Your task to perform on an android device: stop showing notifications on the lock screen Image 0: 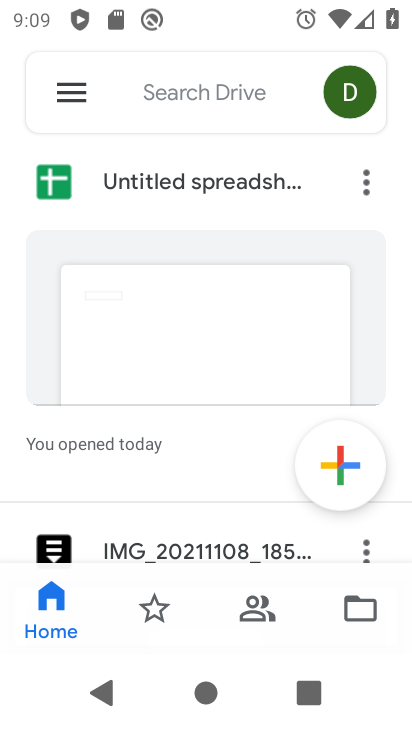
Step 0: drag from (222, 524) to (331, 24)
Your task to perform on an android device: stop showing notifications on the lock screen Image 1: 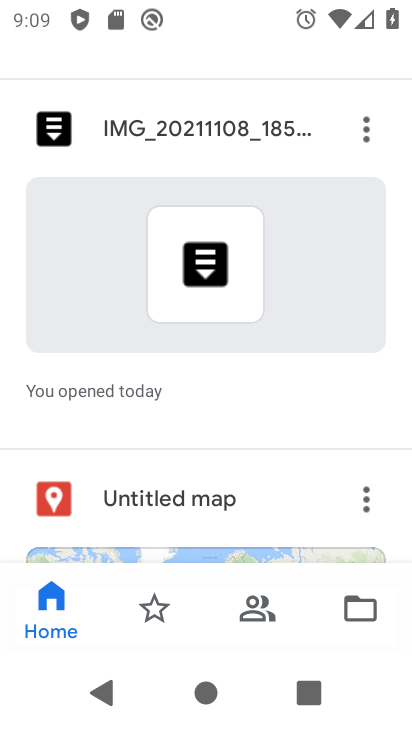
Step 1: press home button
Your task to perform on an android device: stop showing notifications on the lock screen Image 2: 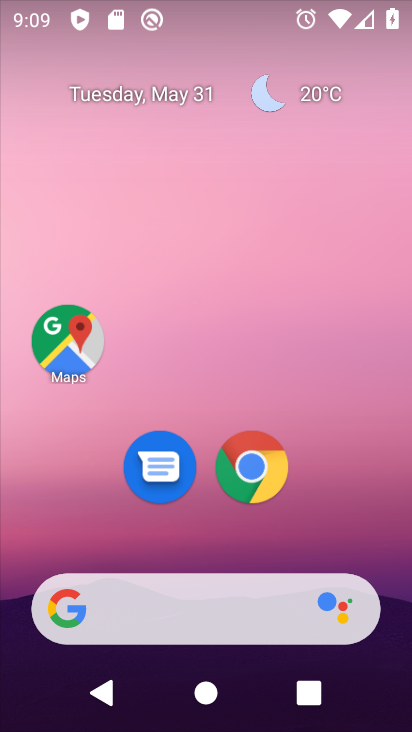
Step 2: drag from (206, 458) to (223, 208)
Your task to perform on an android device: stop showing notifications on the lock screen Image 3: 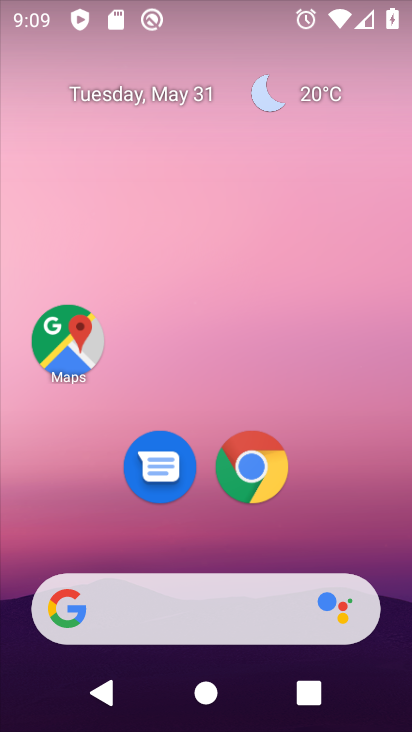
Step 3: drag from (191, 571) to (193, 122)
Your task to perform on an android device: stop showing notifications on the lock screen Image 4: 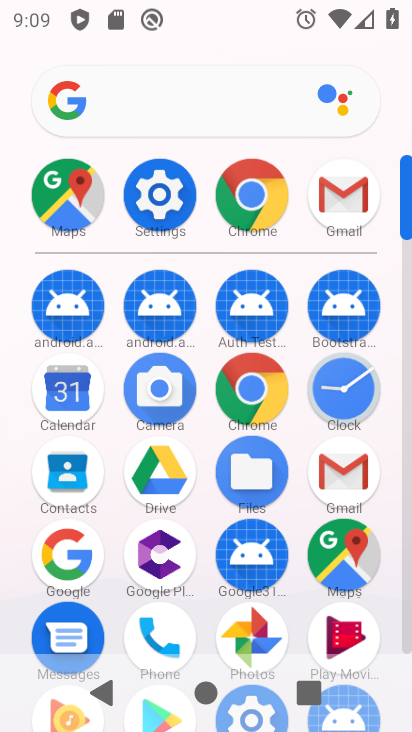
Step 4: click (155, 187)
Your task to perform on an android device: stop showing notifications on the lock screen Image 5: 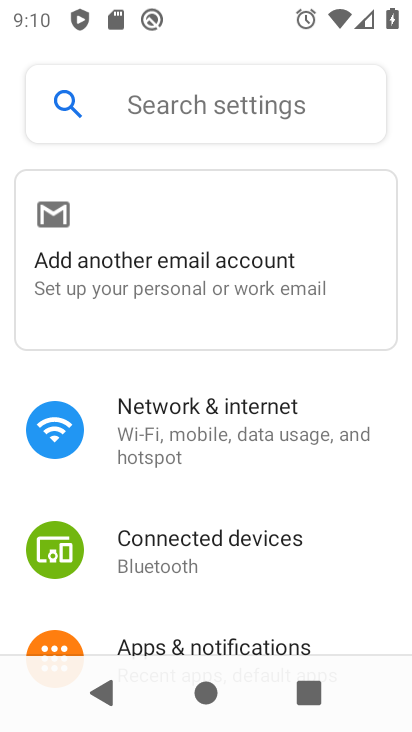
Step 5: click (197, 631)
Your task to perform on an android device: stop showing notifications on the lock screen Image 6: 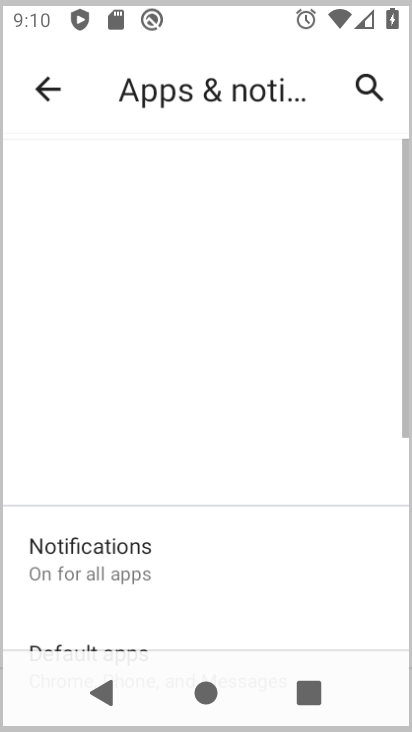
Step 6: drag from (208, 622) to (408, 39)
Your task to perform on an android device: stop showing notifications on the lock screen Image 7: 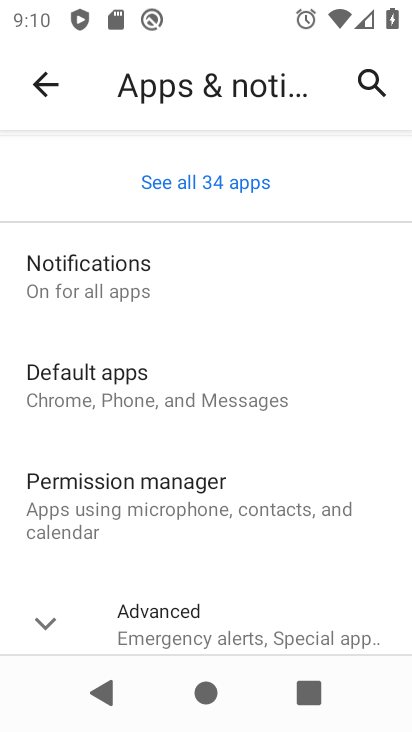
Step 7: click (168, 253)
Your task to perform on an android device: stop showing notifications on the lock screen Image 8: 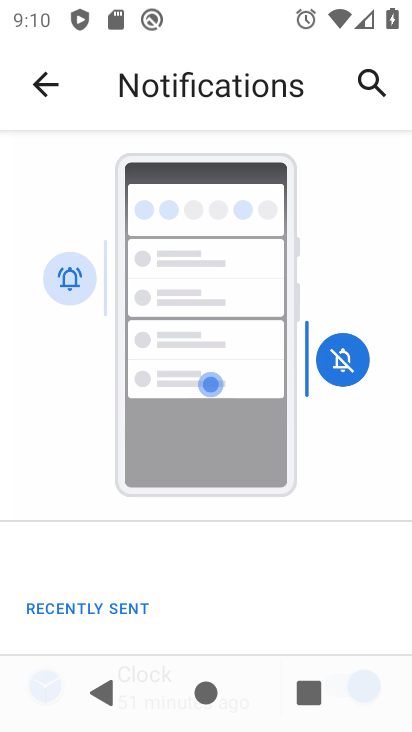
Step 8: drag from (216, 610) to (402, 61)
Your task to perform on an android device: stop showing notifications on the lock screen Image 9: 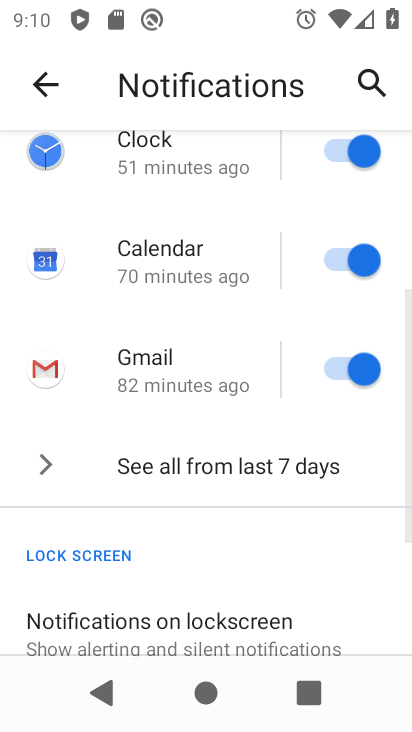
Step 9: drag from (235, 557) to (298, 169)
Your task to perform on an android device: stop showing notifications on the lock screen Image 10: 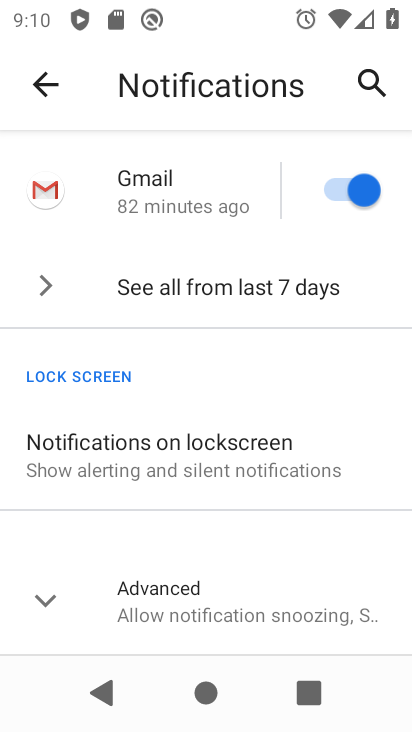
Step 10: click (219, 497)
Your task to perform on an android device: stop showing notifications on the lock screen Image 11: 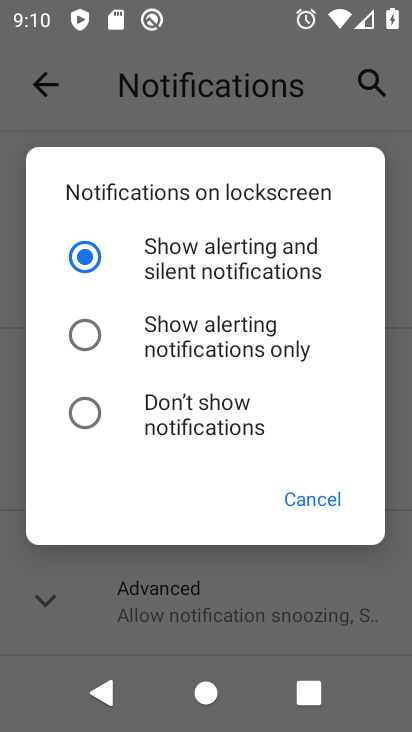
Step 11: click (177, 404)
Your task to perform on an android device: stop showing notifications on the lock screen Image 12: 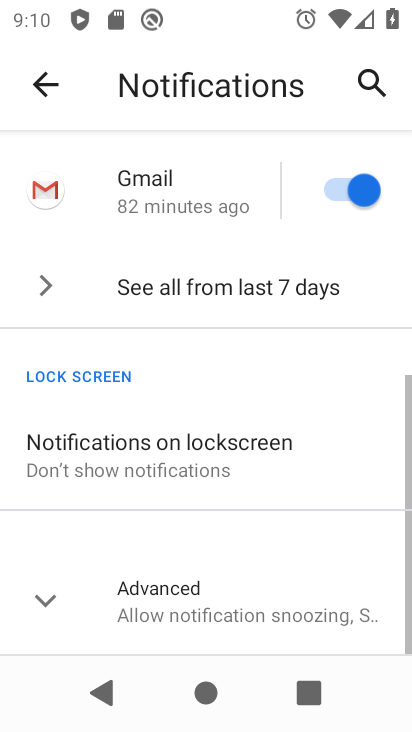
Step 12: task complete